Your task to perform on an android device: turn off notifications in google photos Image 0: 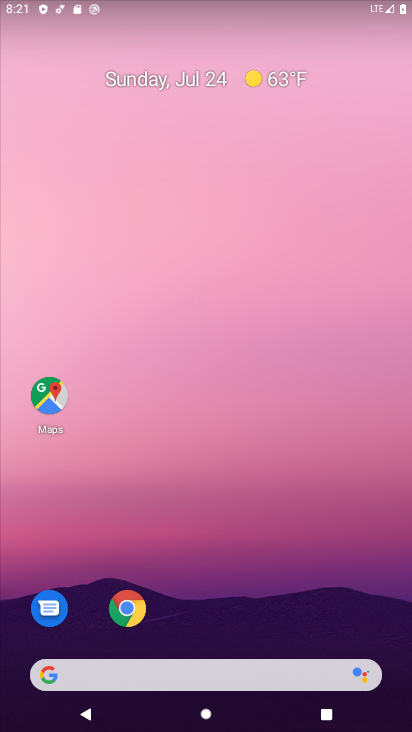
Step 0: drag from (240, 630) to (232, 48)
Your task to perform on an android device: turn off notifications in google photos Image 1: 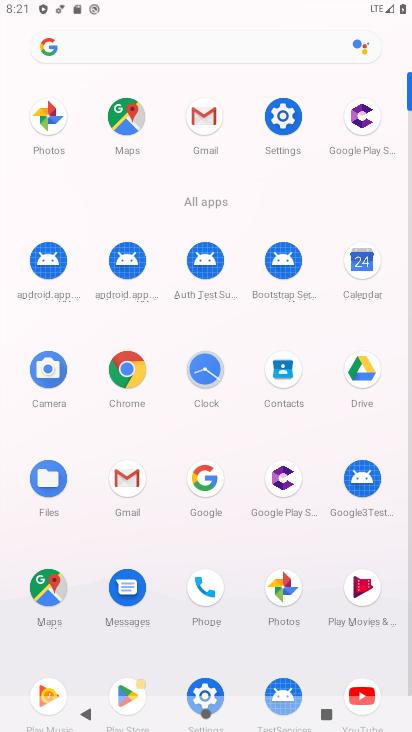
Step 1: click (279, 578)
Your task to perform on an android device: turn off notifications in google photos Image 2: 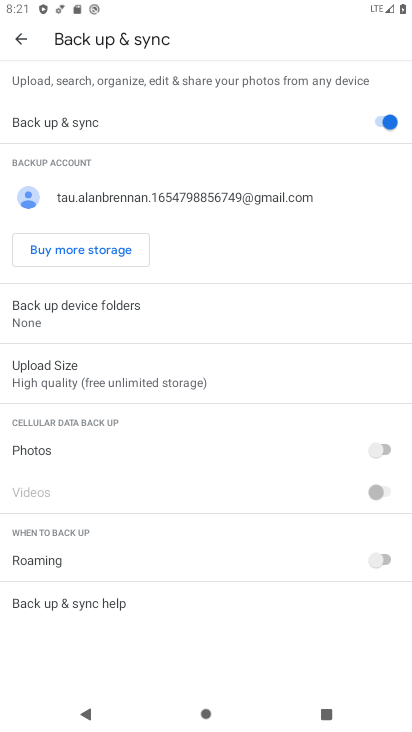
Step 2: click (15, 37)
Your task to perform on an android device: turn off notifications in google photos Image 3: 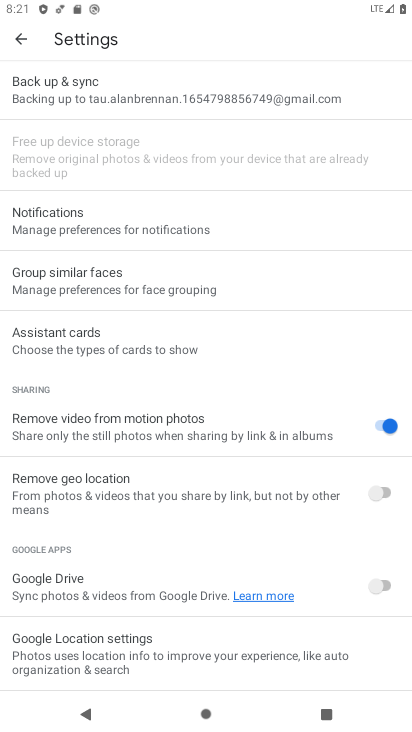
Step 3: click (96, 220)
Your task to perform on an android device: turn off notifications in google photos Image 4: 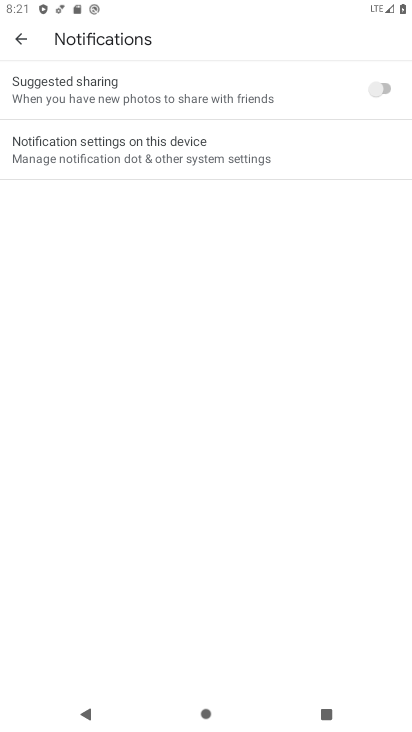
Step 4: click (152, 162)
Your task to perform on an android device: turn off notifications in google photos Image 5: 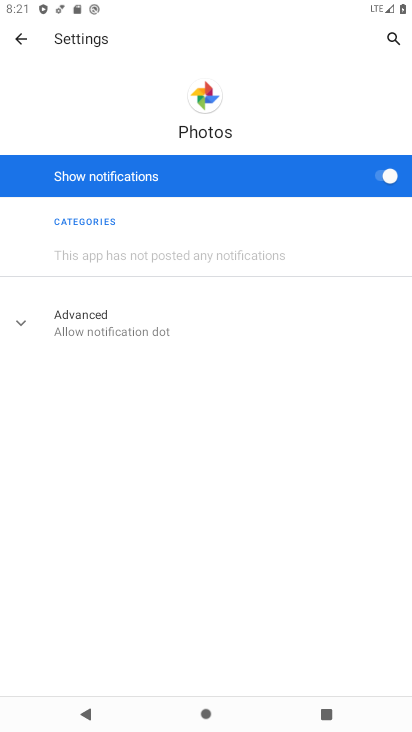
Step 5: click (378, 171)
Your task to perform on an android device: turn off notifications in google photos Image 6: 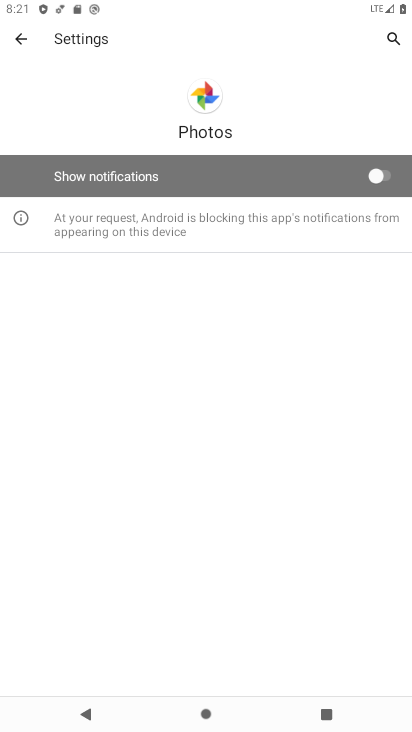
Step 6: task complete